Your task to perform on an android device: What is the news today? Image 0: 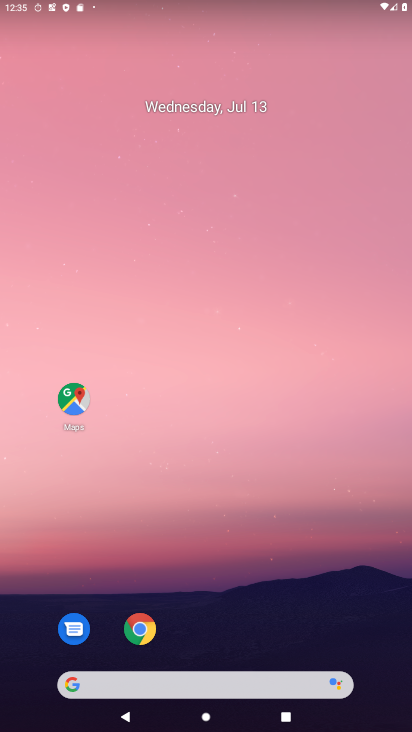
Step 0: drag from (226, 620) to (190, 189)
Your task to perform on an android device: What is the news today? Image 1: 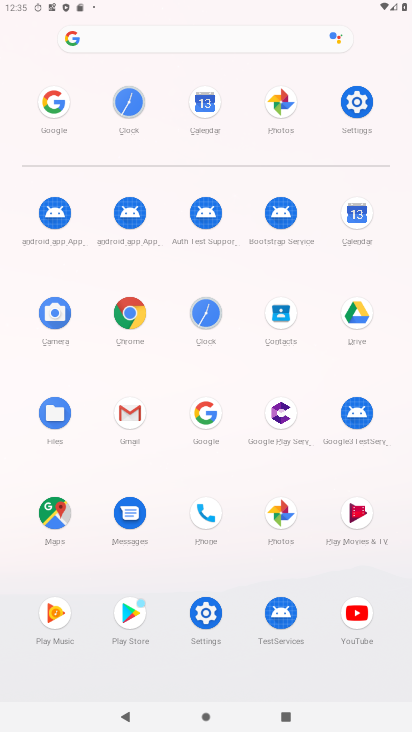
Step 1: click (203, 401)
Your task to perform on an android device: What is the news today? Image 2: 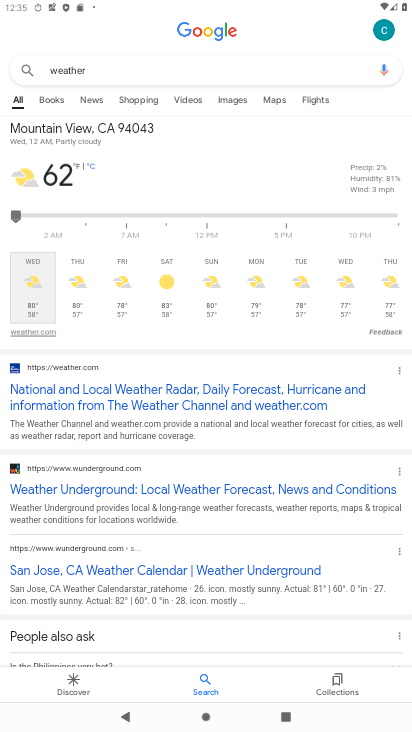
Step 2: click (177, 72)
Your task to perform on an android device: What is the news today? Image 3: 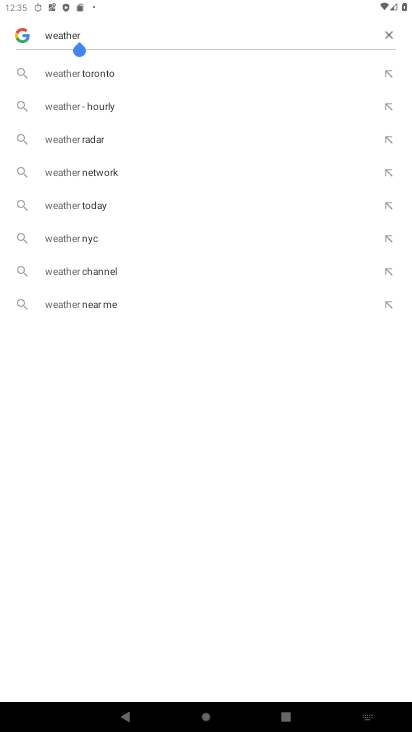
Step 3: click (390, 35)
Your task to perform on an android device: What is the news today? Image 4: 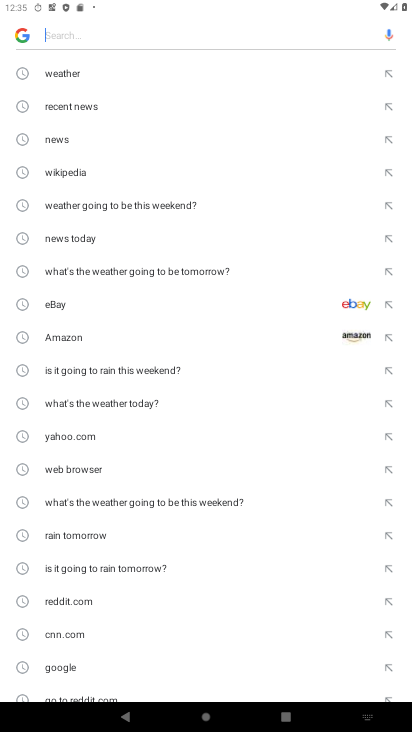
Step 4: click (103, 138)
Your task to perform on an android device: What is the news today? Image 5: 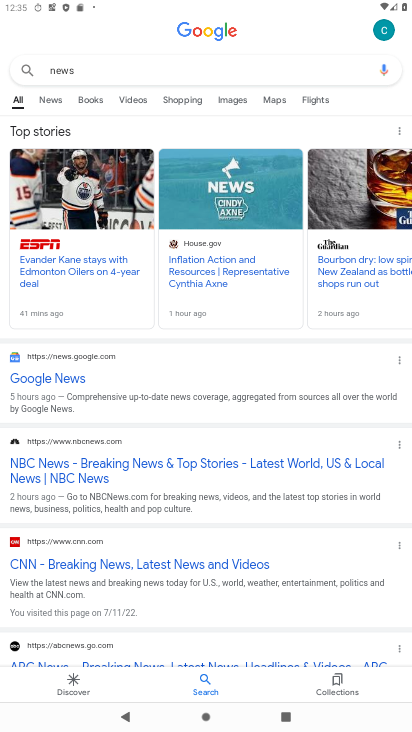
Step 5: click (54, 100)
Your task to perform on an android device: What is the news today? Image 6: 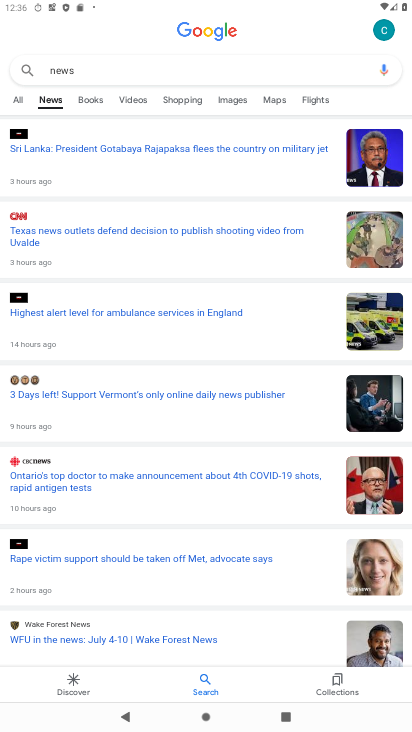
Step 6: task complete